Your task to perform on an android device: Open the calendar app, open the side menu, and click the "Day" option Image 0: 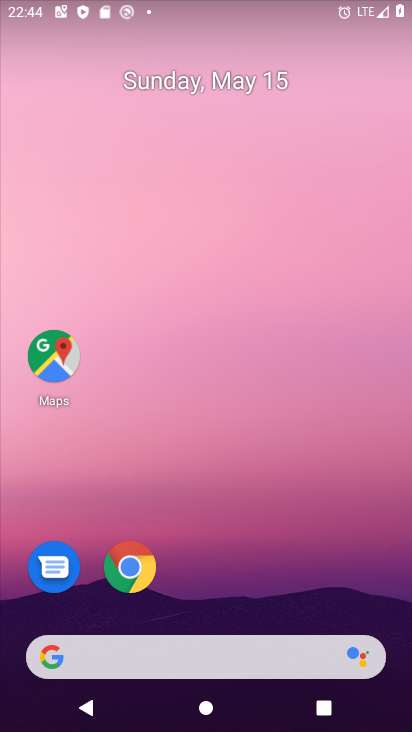
Step 0: drag from (245, 719) to (157, 25)
Your task to perform on an android device: Open the calendar app, open the side menu, and click the "Day" option Image 1: 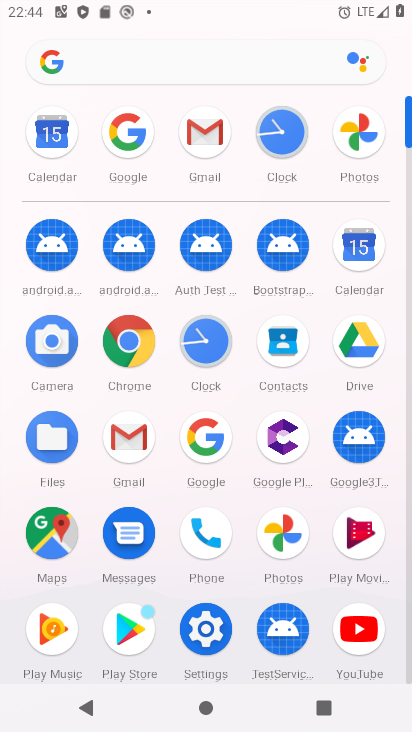
Step 1: click (358, 249)
Your task to perform on an android device: Open the calendar app, open the side menu, and click the "Day" option Image 2: 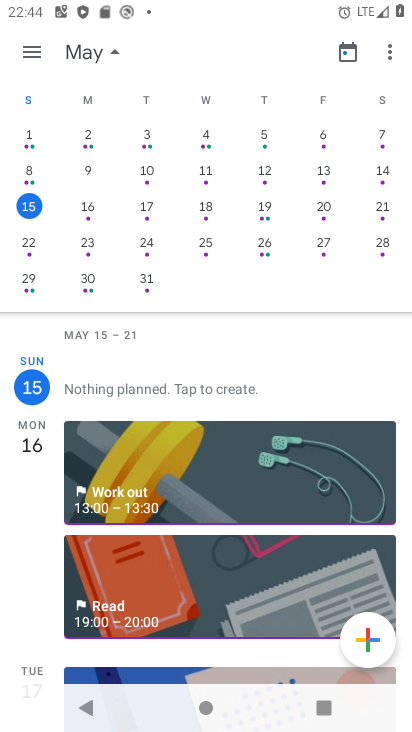
Step 2: click (31, 48)
Your task to perform on an android device: Open the calendar app, open the side menu, and click the "Day" option Image 3: 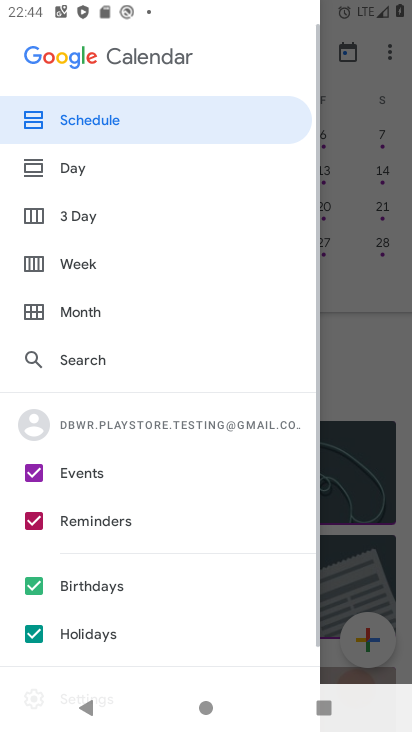
Step 3: click (110, 178)
Your task to perform on an android device: Open the calendar app, open the side menu, and click the "Day" option Image 4: 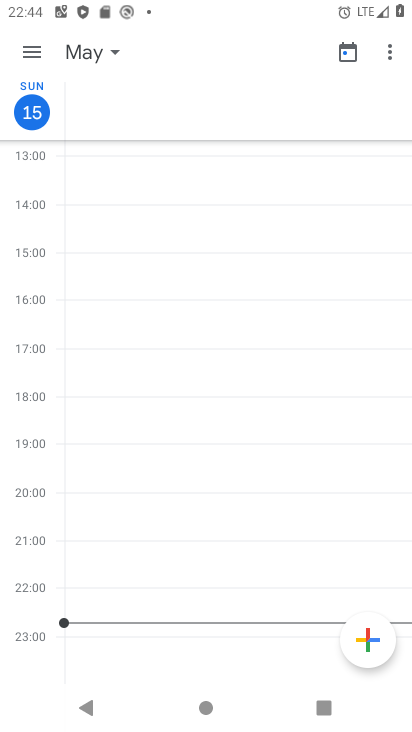
Step 4: task complete